Your task to perform on an android device: Clear the cart on target. Add "macbook pro" to the cart on target Image 0: 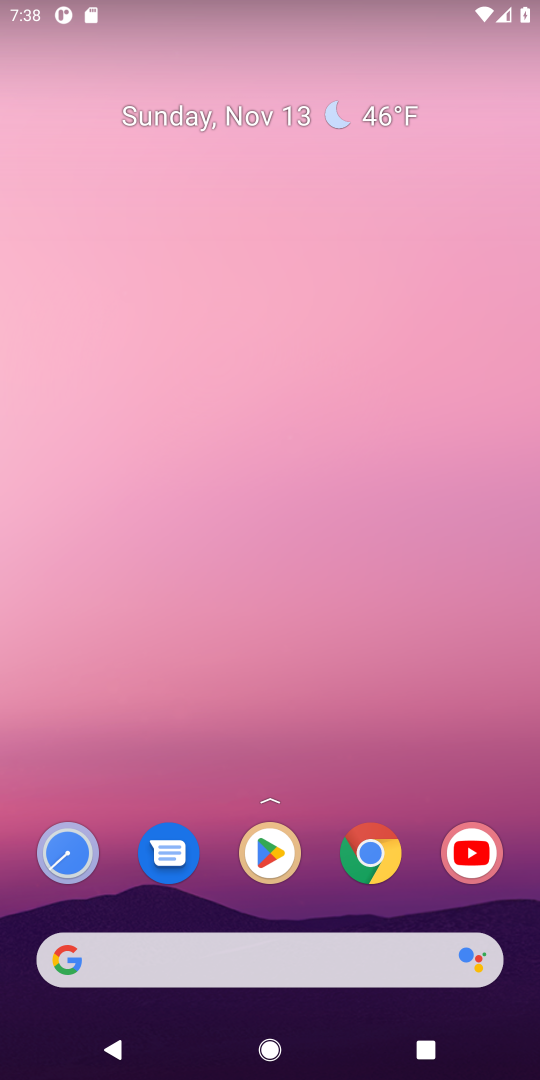
Step 0: press home button
Your task to perform on an android device: Clear the cart on target. Add "macbook pro" to the cart on target Image 1: 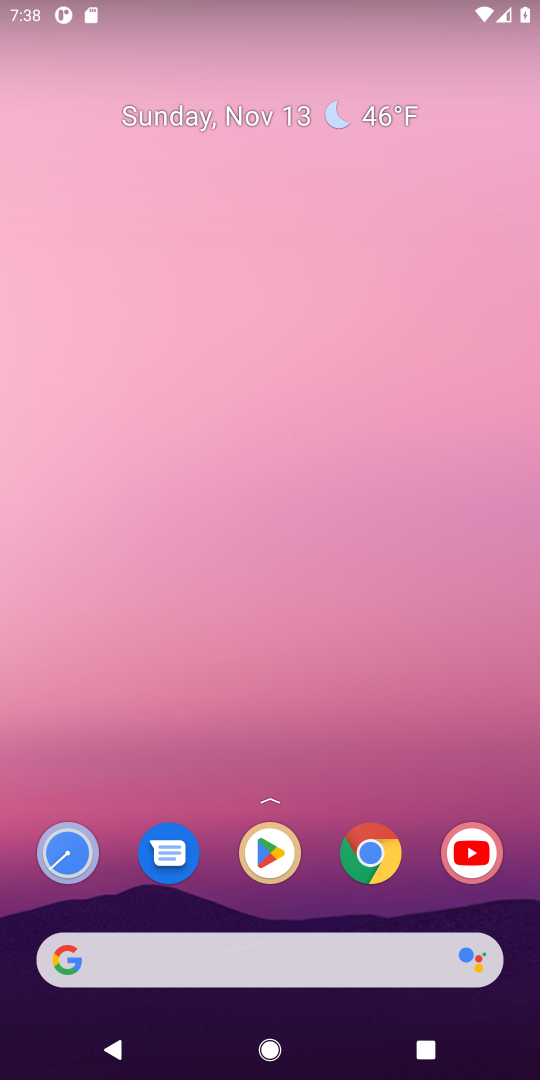
Step 1: click (93, 956)
Your task to perform on an android device: Clear the cart on target. Add "macbook pro" to the cart on target Image 2: 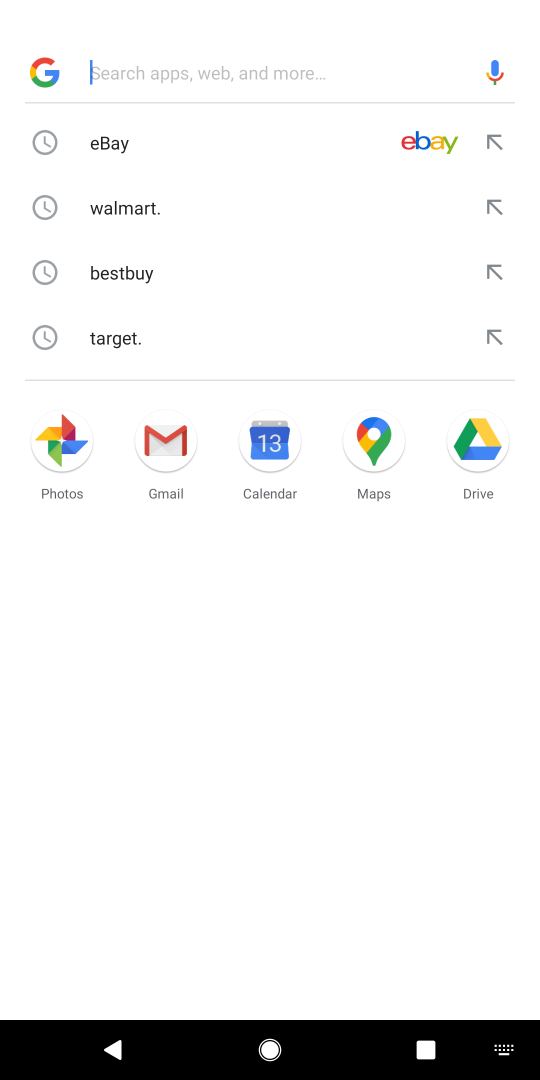
Step 2: type "target"
Your task to perform on an android device: Clear the cart on target. Add "macbook pro" to the cart on target Image 3: 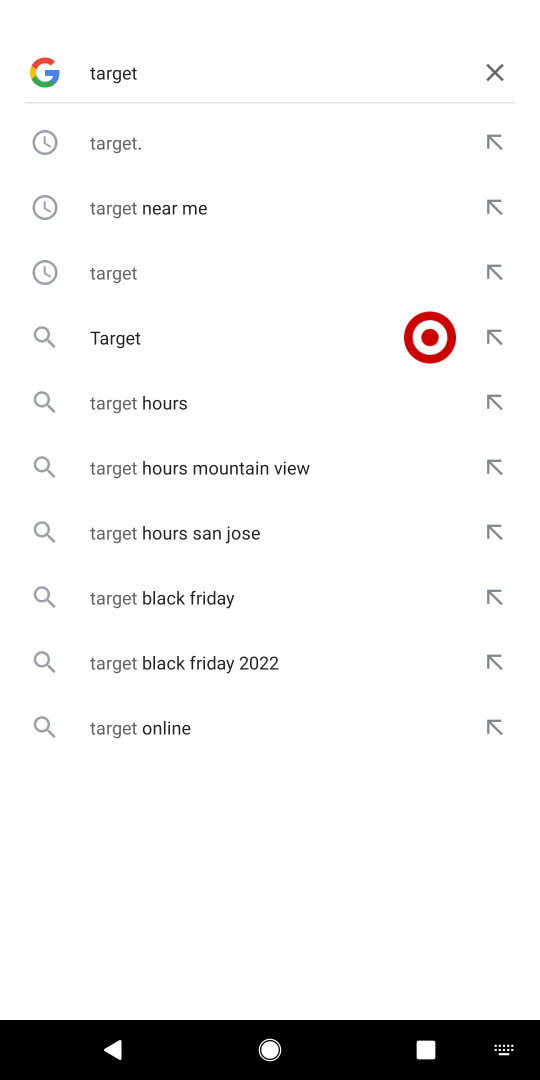
Step 3: press enter
Your task to perform on an android device: Clear the cart on target. Add "macbook pro" to the cart on target Image 4: 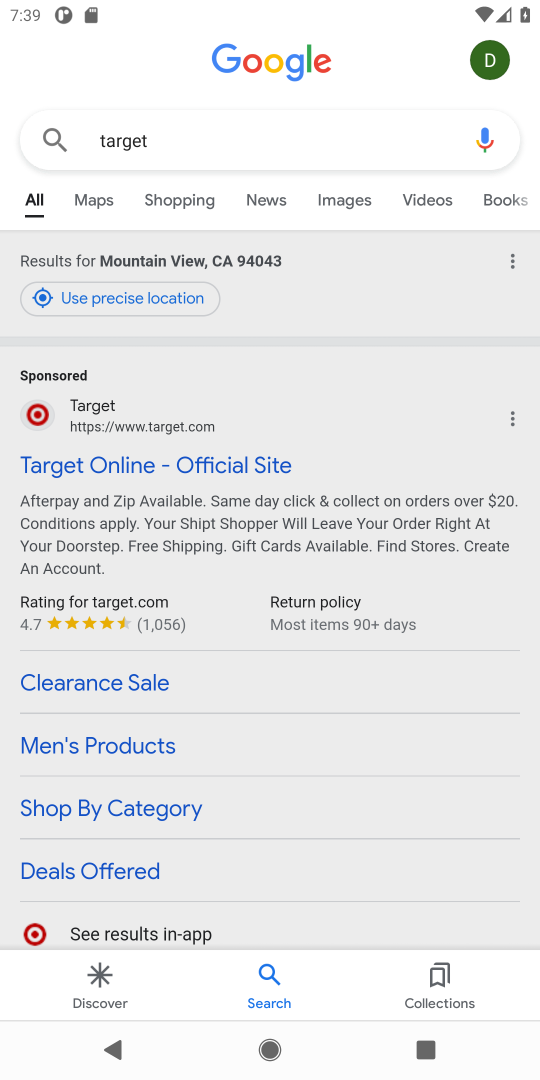
Step 4: click (116, 463)
Your task to perform on an android device: Clear the cart on target. Add "macbook pro" to the cart on target Image 5: 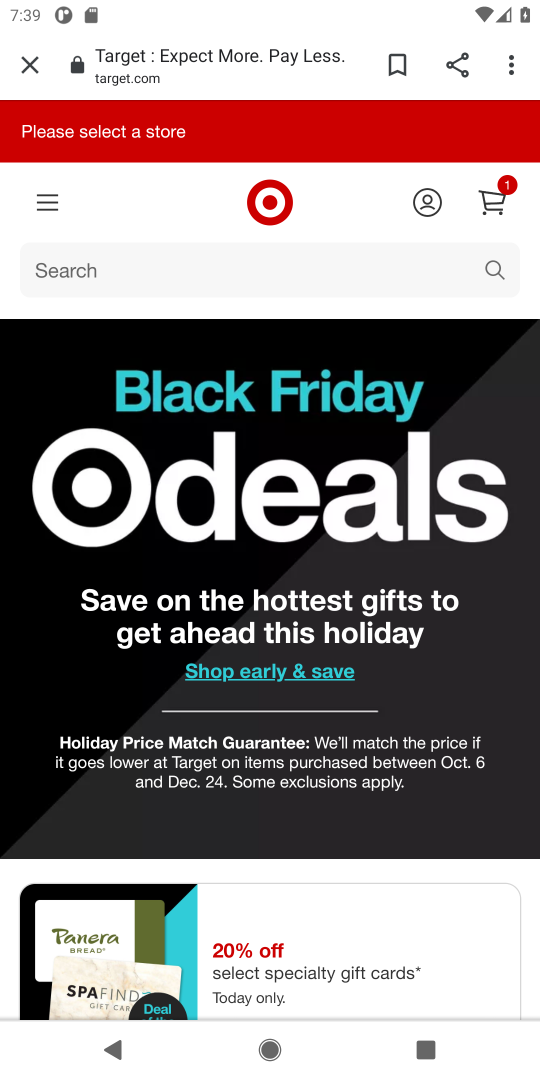
Step 5: click (506, 198)
Your task to perform on an android device: Clear the cart on target. Add "macbook pro" to the cart on target Image 6: 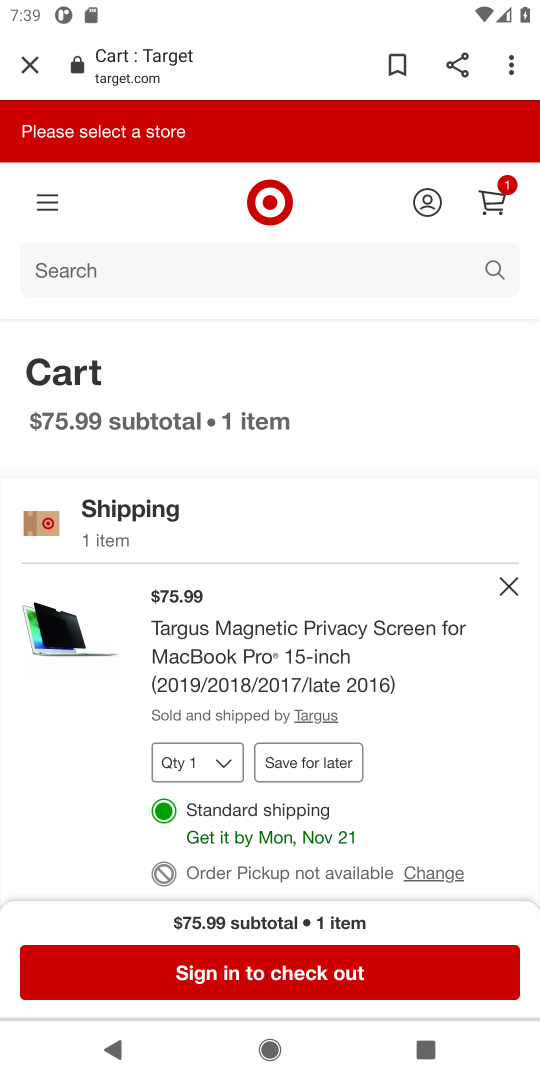
Step 6: click (506, 594)
Your task to perform on an android device: Clear the cart on target. Add "macbook pro" to the cart on target Image 7: 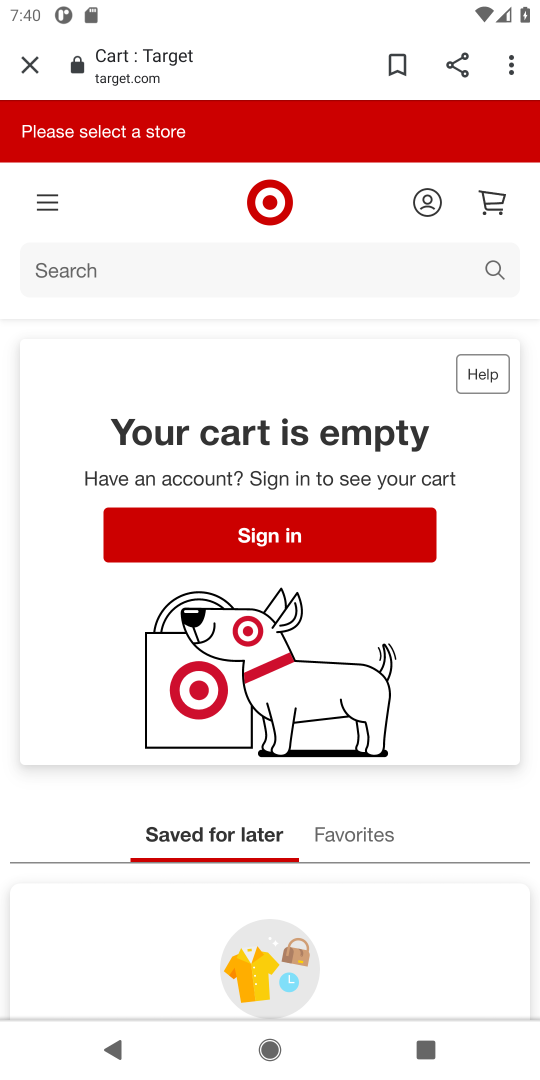
Step 7: task complete